Your task to perform on an android device: Go to Amazon Image 0: 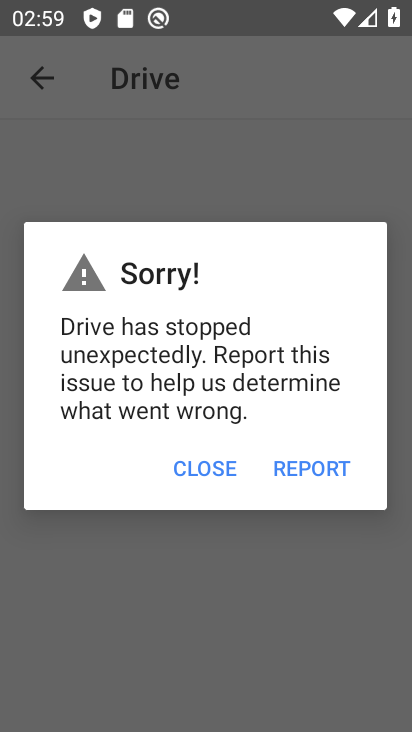
Step 0: press home button
Your task to perform on an android device: Go to Amazon Image 1: 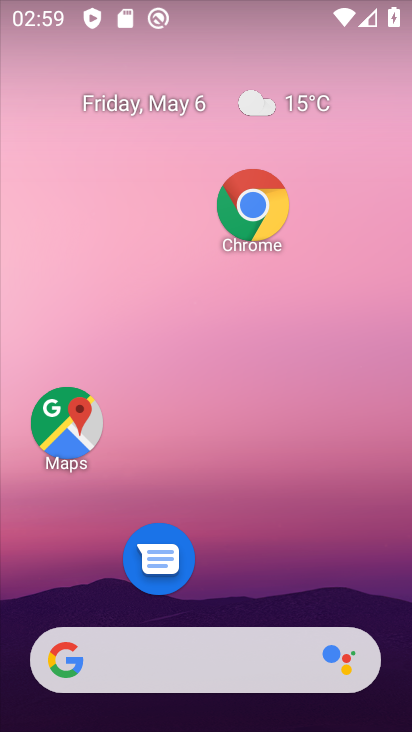
Step 1: click (255, 234)
Your task to perform on an android device: Go to Amazon Image 2: 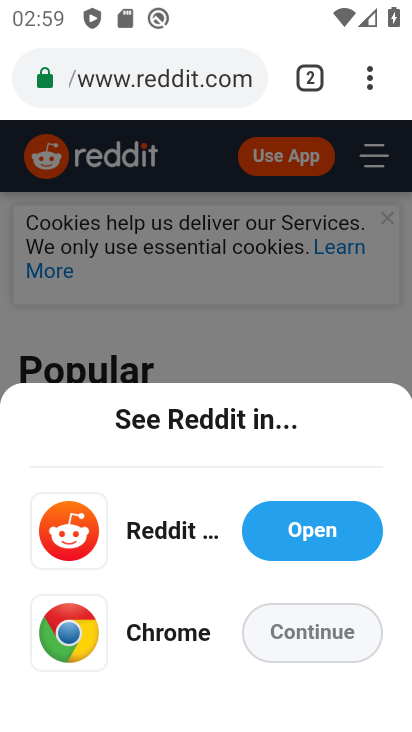
Step 2: click (296, 628)
Your task to perform on an android device: Go to Amazon Image 3: 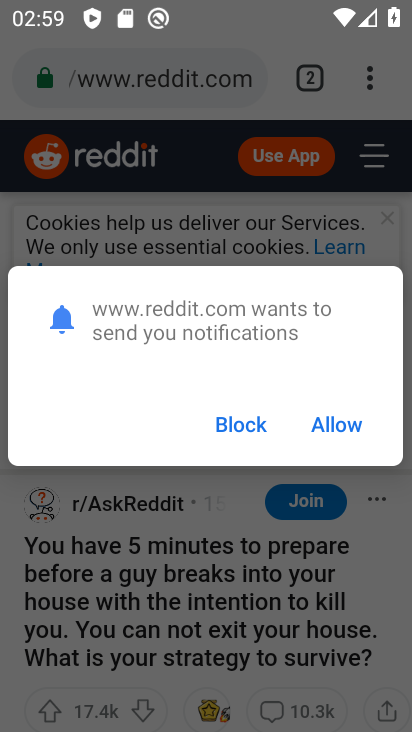
Step 3: click (306, 433)
Your task to perform on an android device: Go to Amazon Image 4: 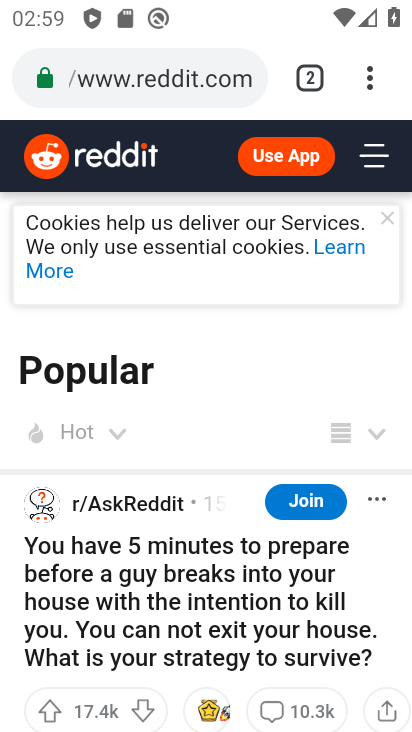
Step 4: click (221, 77)
Your task to perform on an android device: Go to Amazon Image 5: 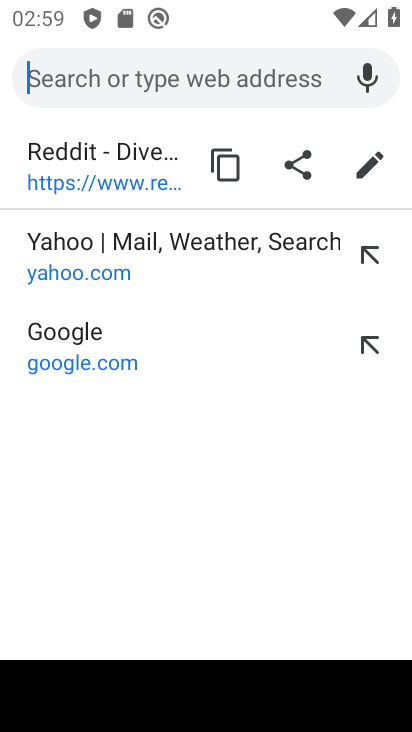
Step 5: type "yahoo.com"
Your task to perform on an android device: Go to Amazon Image 6: 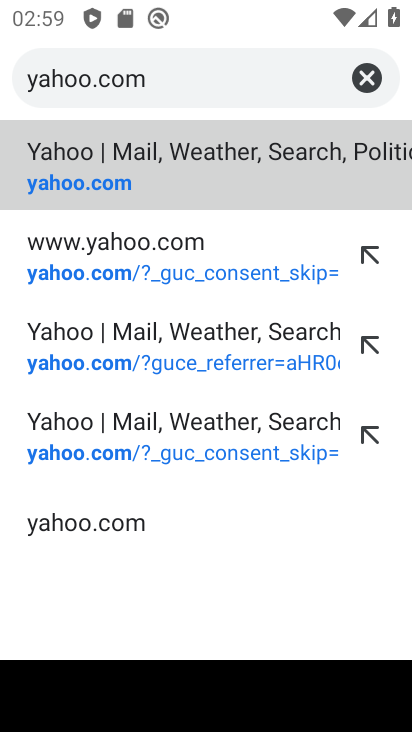
Step 6: click (179, 195)
Your task to perform on an android device: Go to Amazon Image 7: 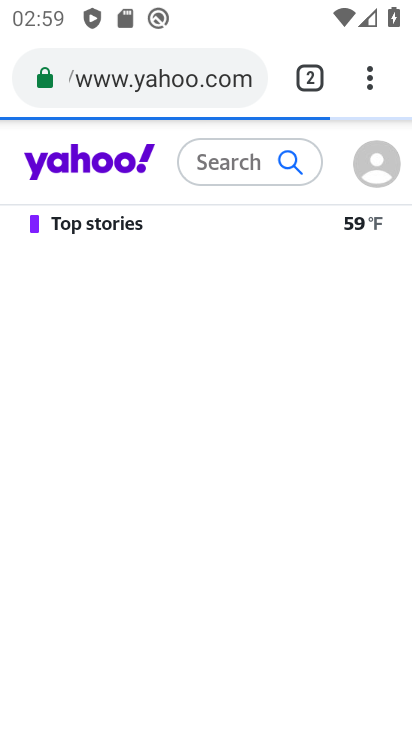
Step 7: task complete